Your task to perform on an android device: turn on notifications settings in the gmail app Image 0: 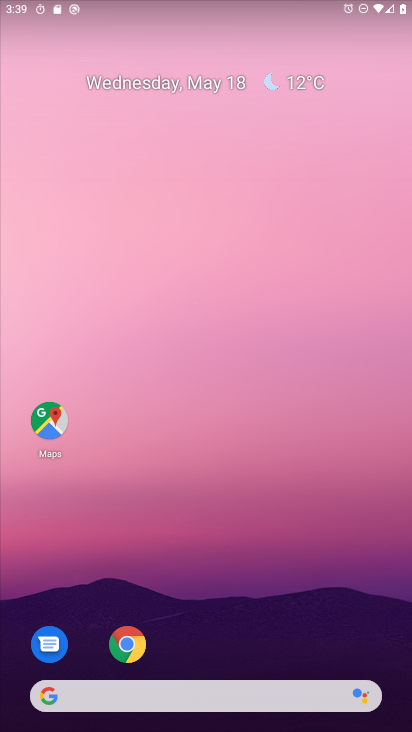
Step 0: drag from (388, 687) to (373, 321)
Your task to perform on an android device: turn on notifications settings in the gmail app Image 1: 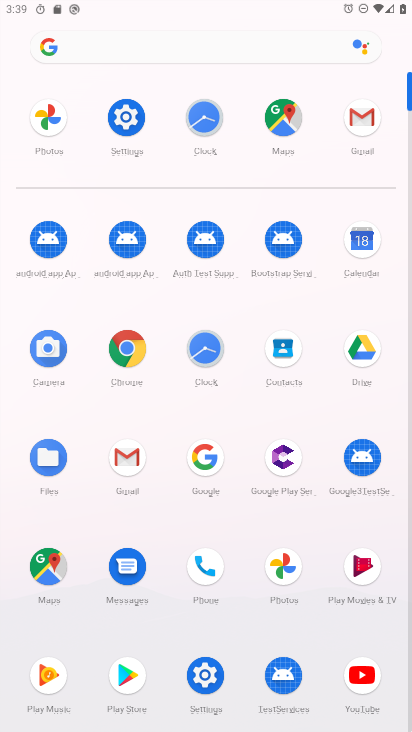
Step 1: click (369, 111)
Your task to perform on an android device: turn on notifications settings in the gmail app Image 2: 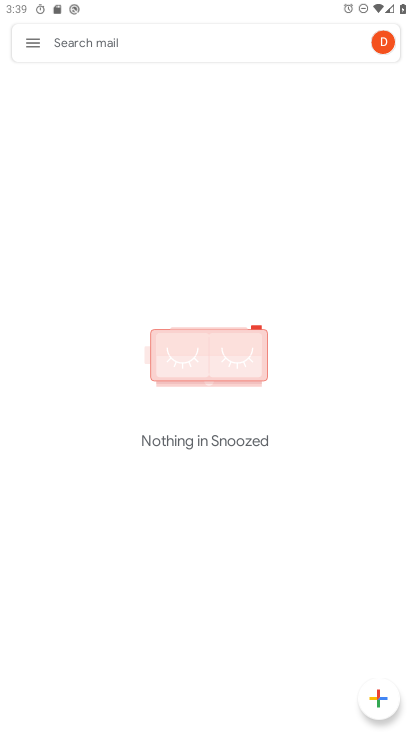
Step 2: click (34, 45)
Your task to perform on an android device: turn on notifications settings in the gmail app Image 3: 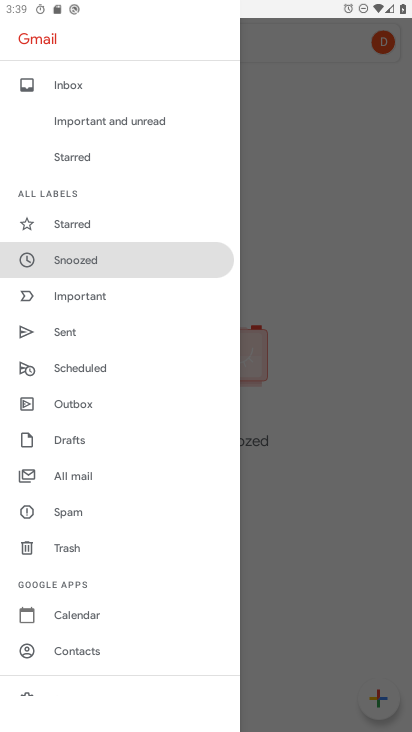
Step 3: drag from (150, 602) to (204, 281)
Your task to perform on an android device: turn on notifications settings in the gmail app Image 4: 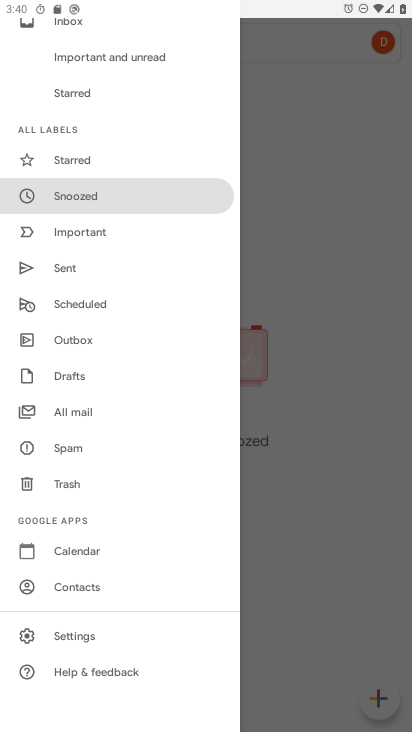
Step 4: click (64, 633)
Your task to perform on an android device: turn on notifications settings in the gmail app Image 5: 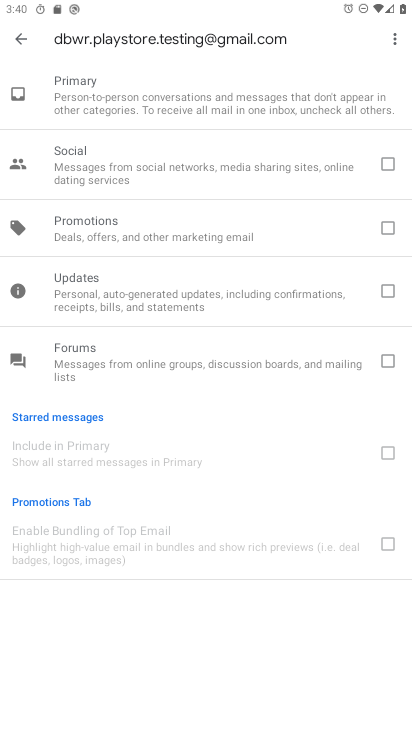
Step 5: click (17, 39)
Your task to perform on an android device: turn on notifications settings in the gmail app Image 6: 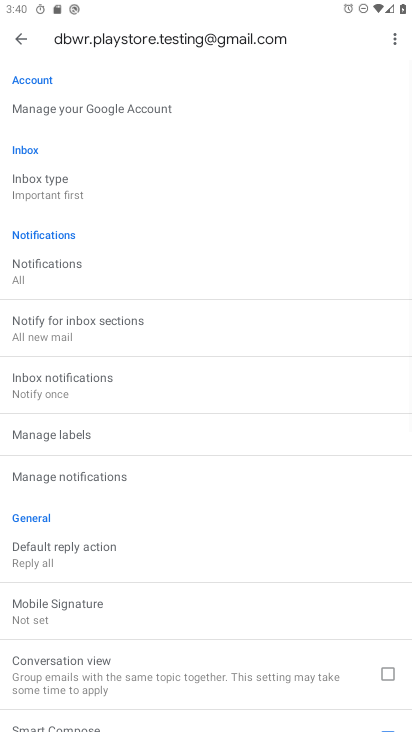
Step 6: click (52, 112)
Your task to perform on an android device: turn on notifications settings in the gmail app Image 7: 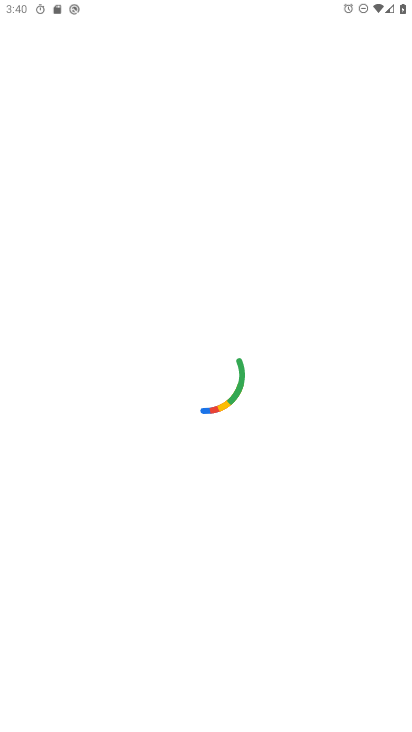
Step 7: click (16, 35)
Your task to perform on an android device: turn on notifications settings in the gmail app Image 8: 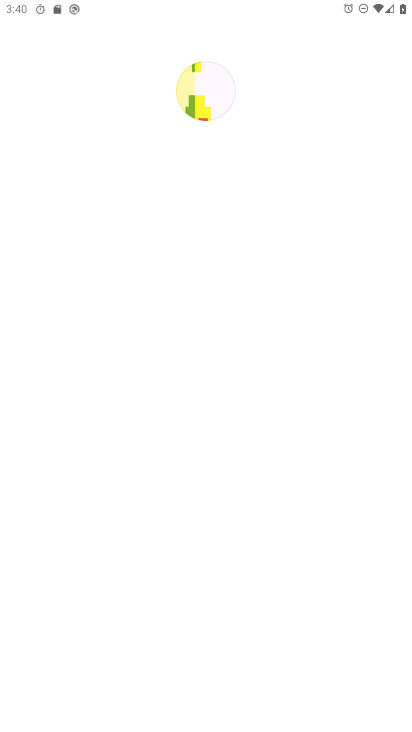
Step 8: press back button
Your task to perform on an android device: turn on notifications settings in the gmail app Image 9: 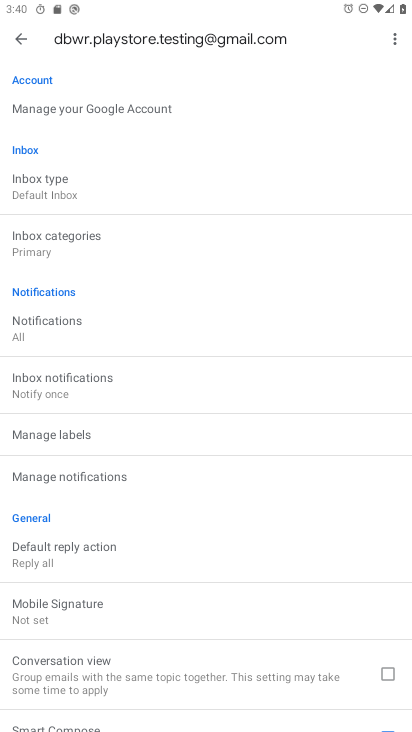
Step 9: click (18, 41)
Your task to perform on an android device: turn on notifications settings in the gmail app Image 10: 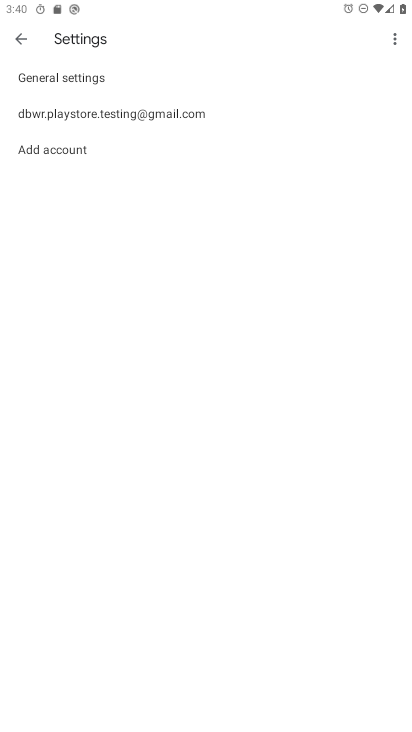
Step 10: click (36, 73)
Your task to perform on an android device: turn on notifications settings in the gmail app Image 11: 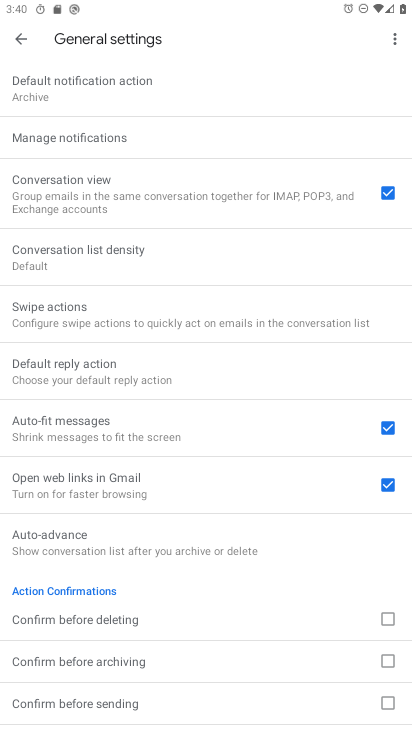
Step 11: click (66, 130)
Your task to perform on an android device: turn on notifications settings in the gmail app Image 12: 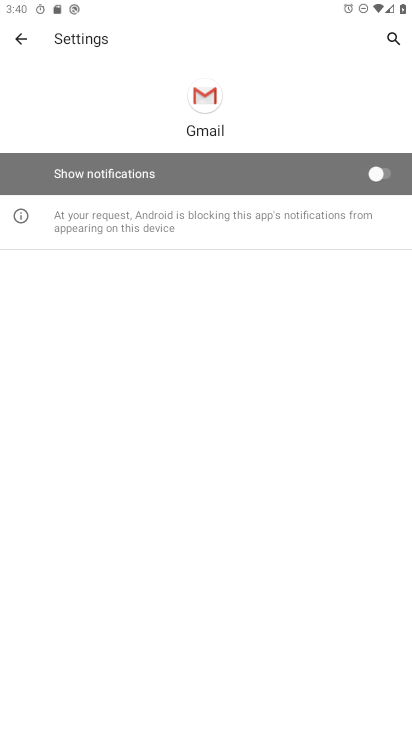
Step 12: click (382, 180)
Your task to perform on an android device: turn on notifications settings in the gmail app Image 13: 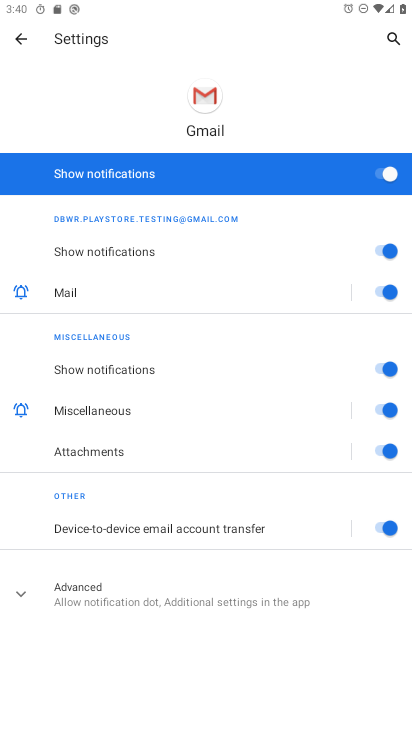
Step 13: task complete